Your task to perform on an android device: install app "Microsoft Outlook" Image 0: 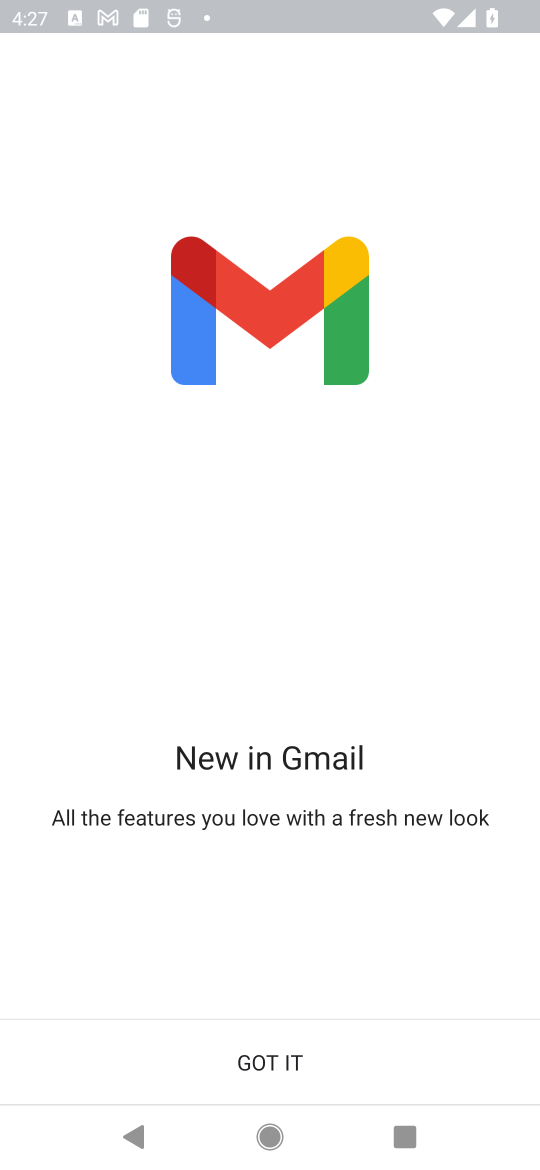
Step 0: press home button
Your task to perform on an android device: install app "Microsoft Outlook" Image 1: 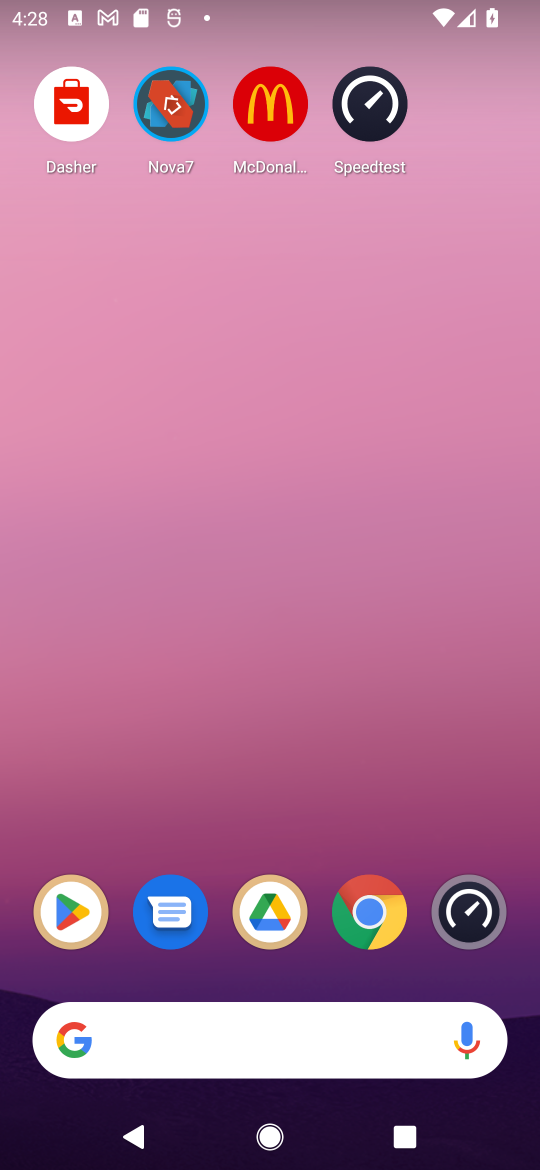
Step 1: click (91, 916)
Your task to perform on an android device: install app "Microsoft Outlook" Image 2: 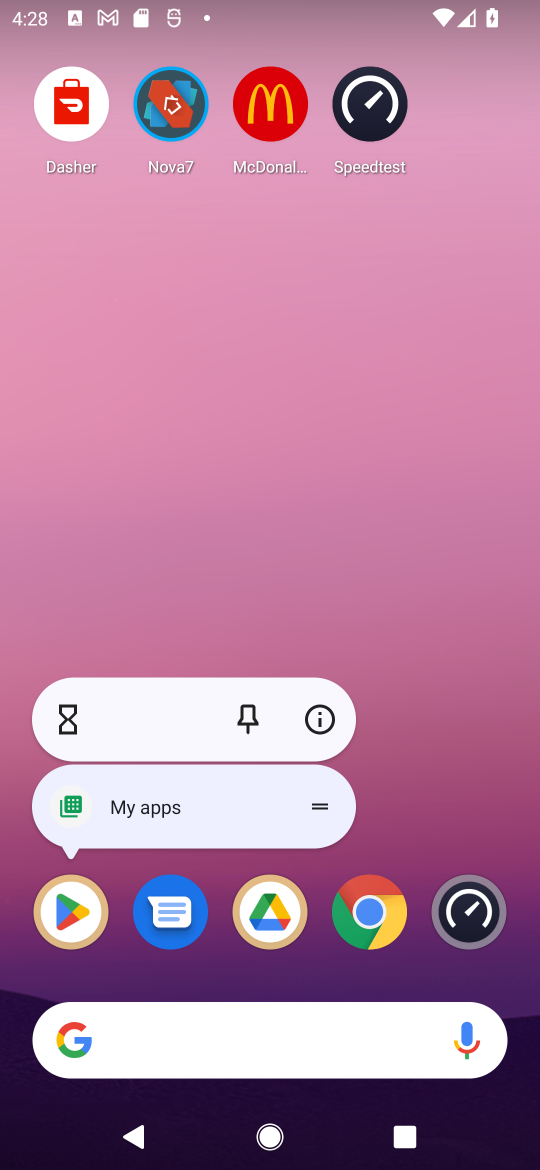
Step 2: click (84, 916)
Your task to perform on an android device: install app "Microsoft Outlook" Image 3: 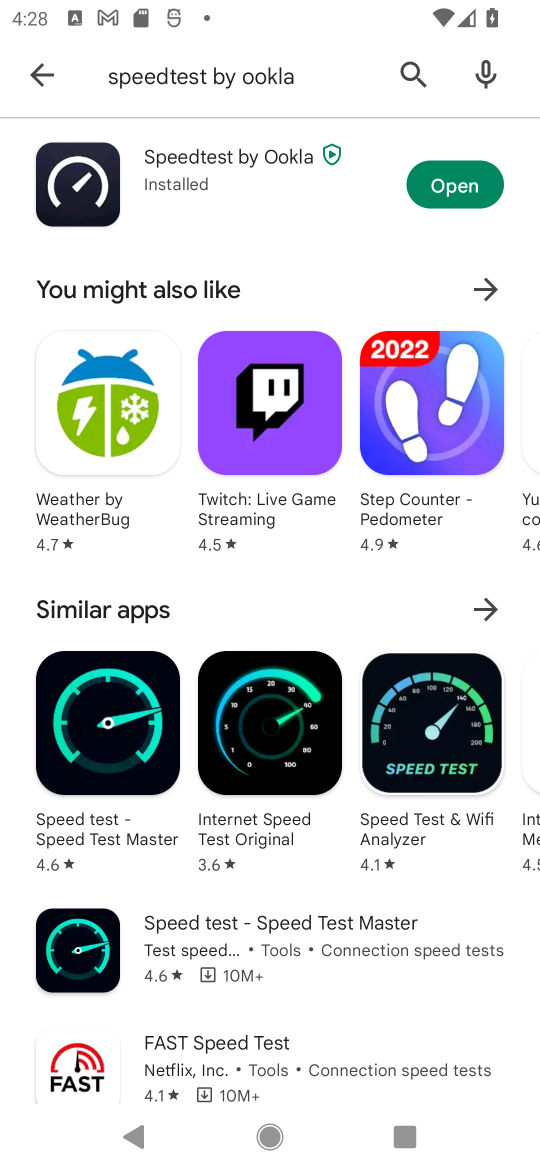
Step 3: click (417, 65)
Your task to perform on an android device: install app "Microsoft Outlook" Image 4: 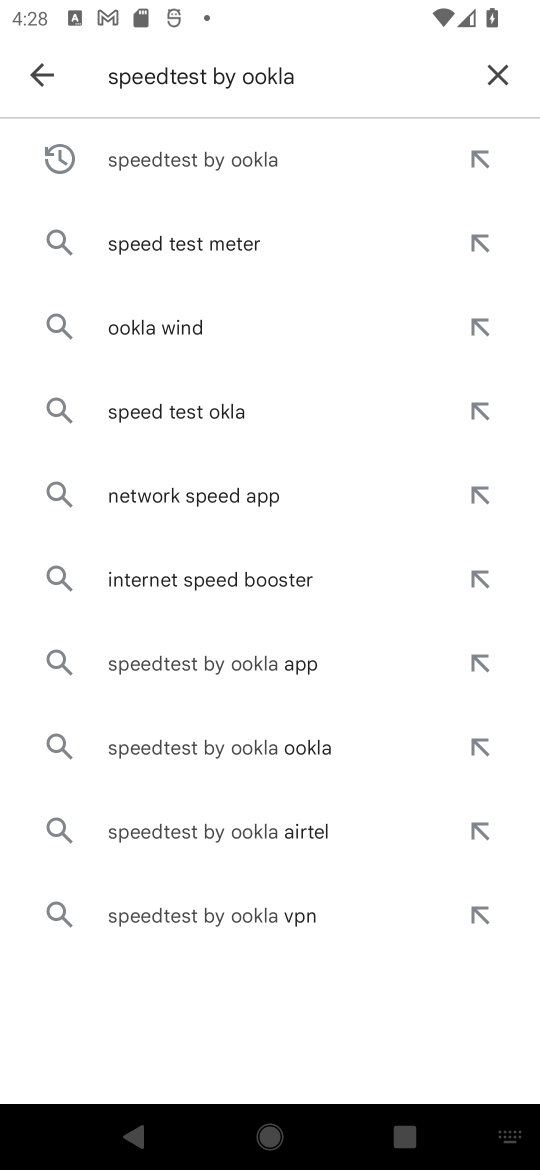
Step 4: click (484, 82)
Your task to perform on an android device: install app "Microsoft Outlook" Image 5: 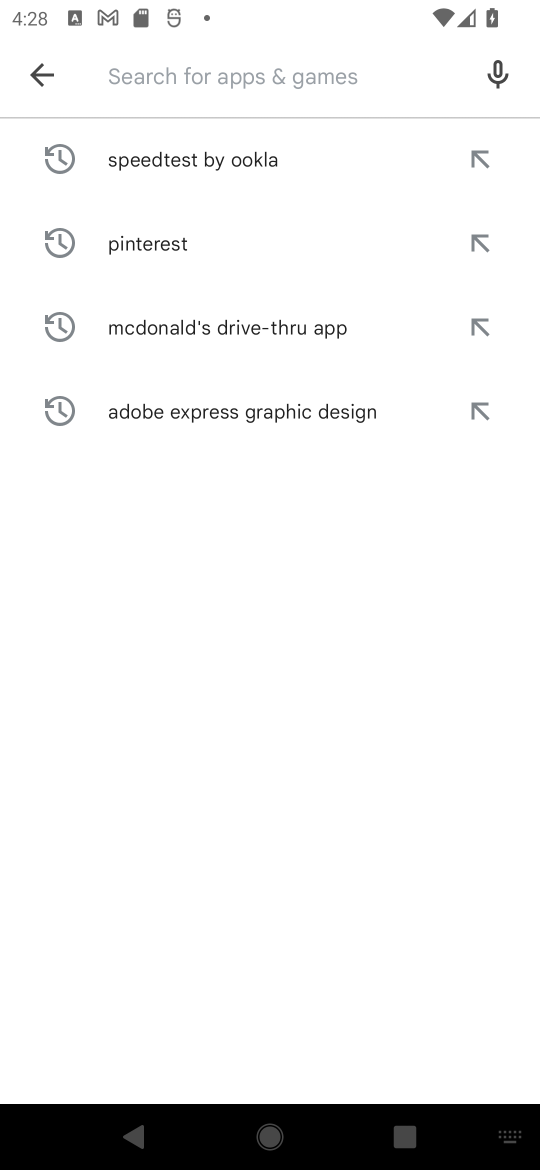
Step 5: type "Microsoft Outlook"
Your task to perform on an android device: install app "Microsoft Outlook" Image 6: 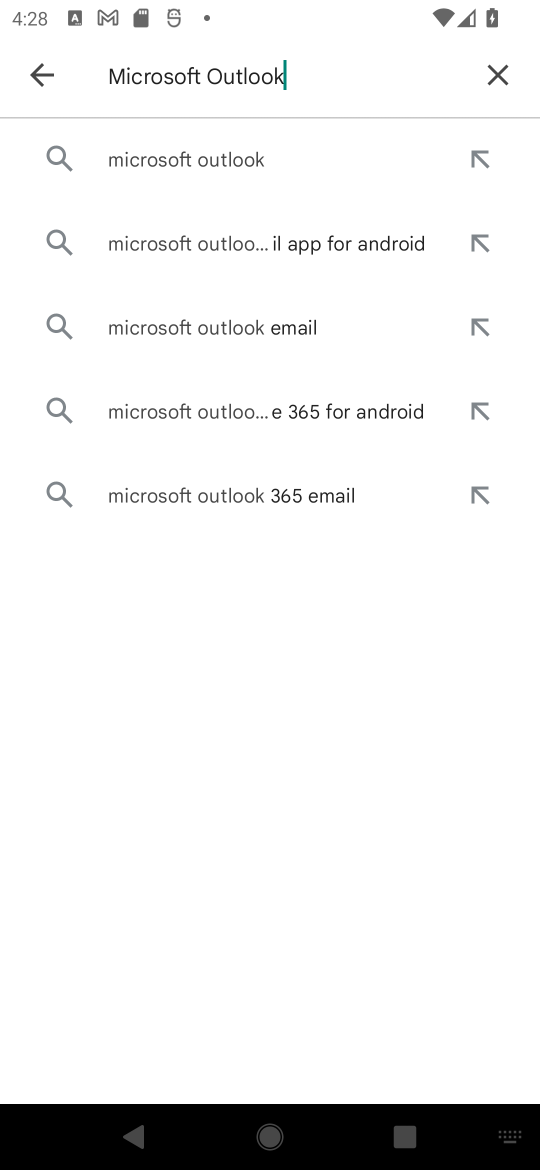
Step 6: click (126, 170)
Your task to perform on an android device: install app "Microsoft Outlook" Image 7: 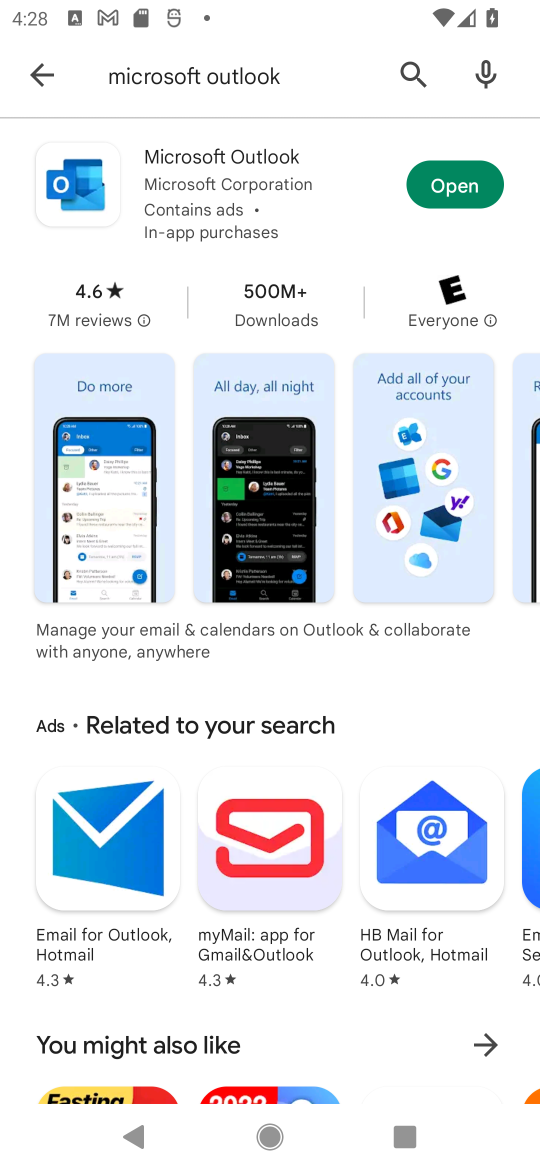
Step 7: task complete